Your task to perform on an android device: delete a single message in the gmail app Image 0: 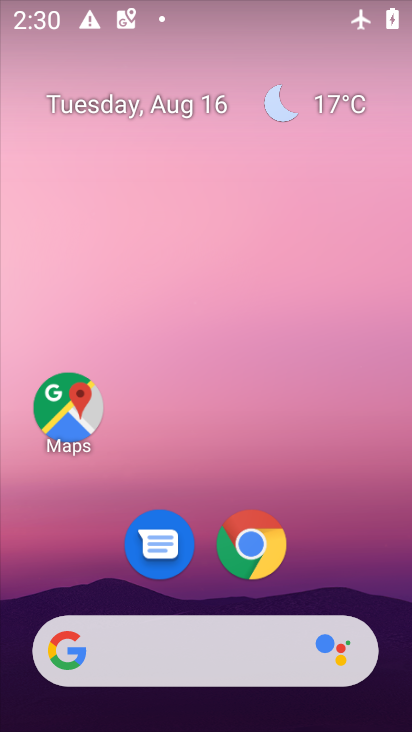
Step 0: drag from (177, 666) to (233, 32)
Your task to perform on an android device: delete a single message in the gmail app Image 1: 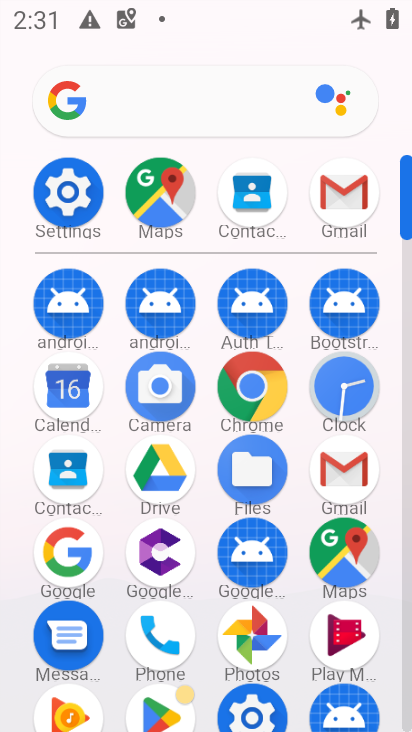
Step 1: click (344, 193)
Your task to perform on an android device: delete a single message in the gmail app Image 2: 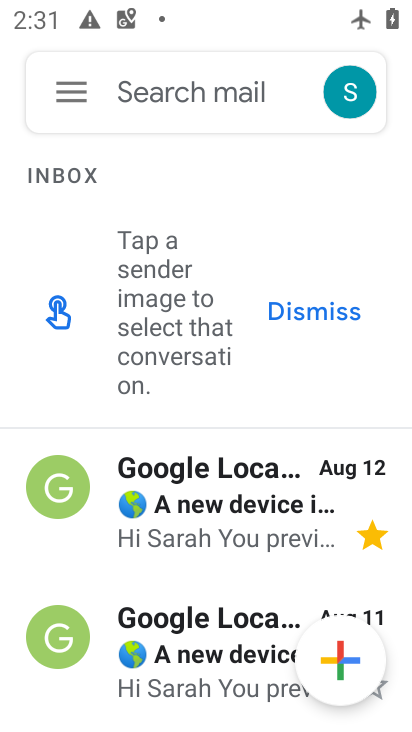
Step 2: click (212, 525)
Your task to perform on an android device: delete a single message in the gmail app Image 3: 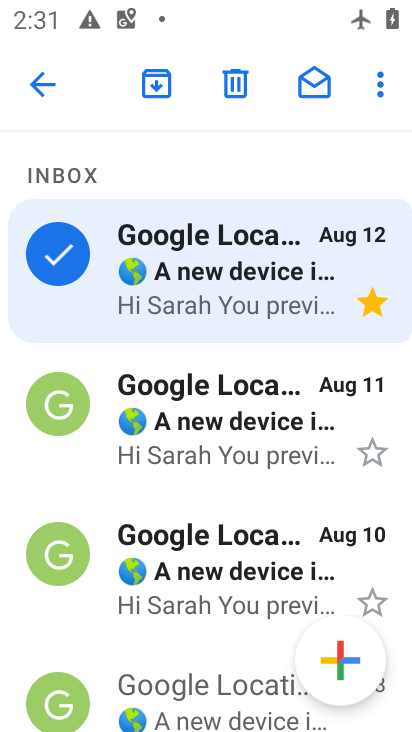
Step 3: click (237, 89)
Your task to perform on an android device: delete a single message in the gmail app Image 4: 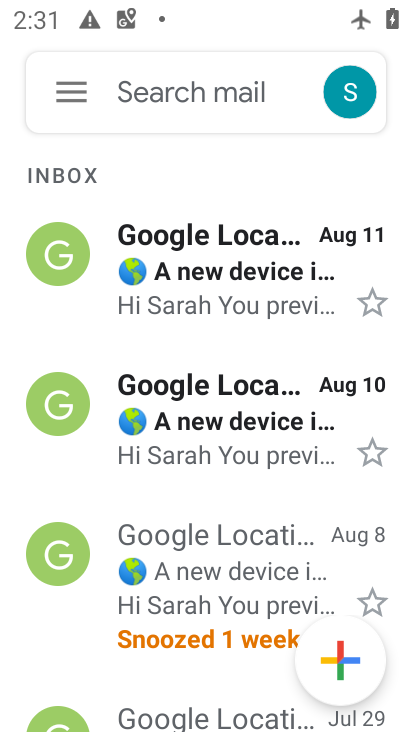
Step 4: task complete